Your task to perform on an android device: choose inbox layout in the gmail app Image 0: 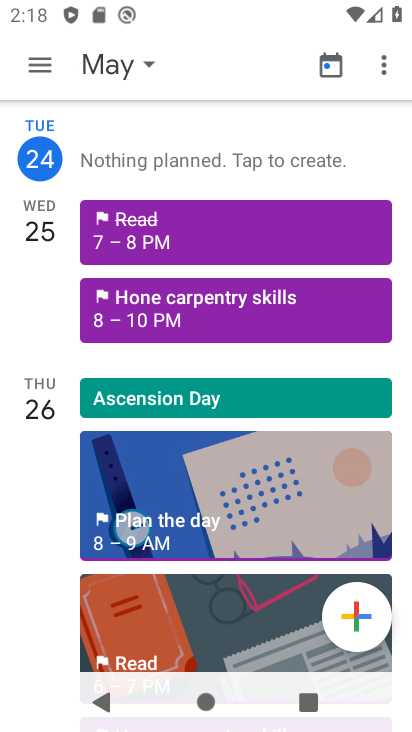
Step 0: press home button
Your task to perform on an android device: choose inbox layout in the gmail app Image 1: 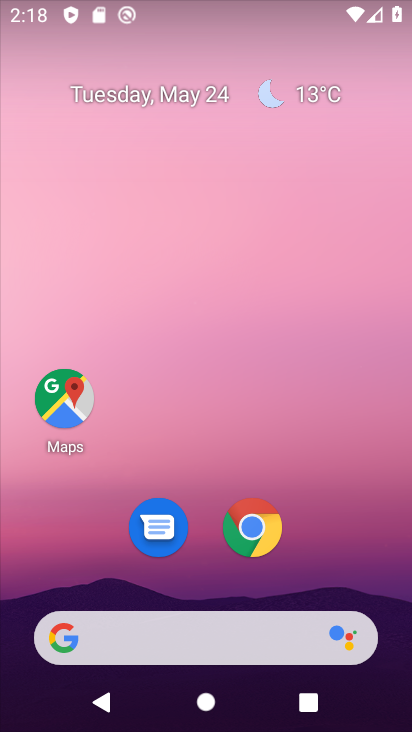
Step 1: drag from (325, 557) to (328, 58)
Your task to perform on an android device: choose inbox layout in the gmail app Image 2: 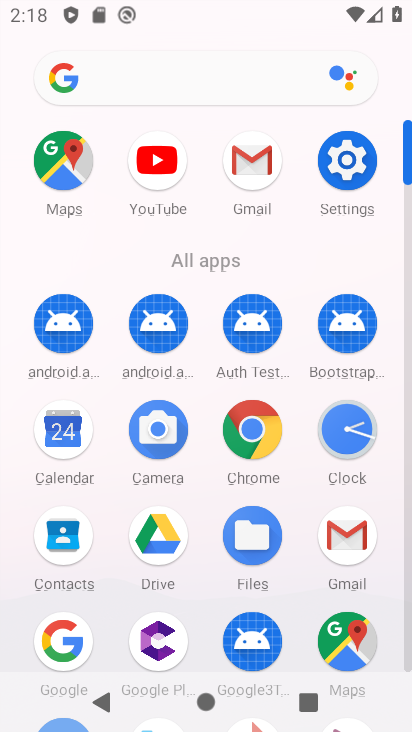
Step 2: click (343, 539)
Your task to perform on an android device: choose inbox layout in the gmail app Image 3: 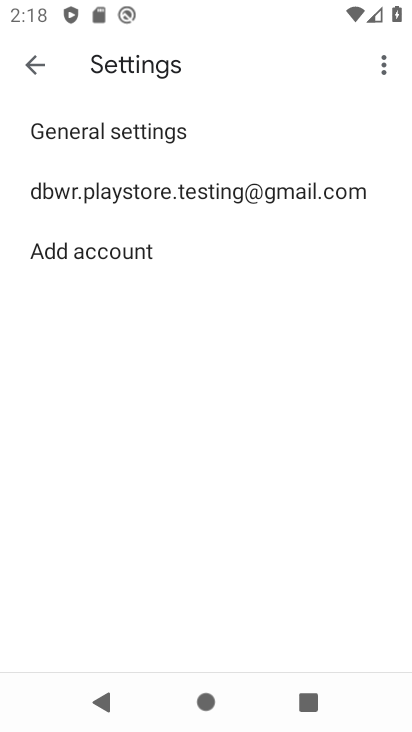
Step 3: click (126, 199)
Your task to perform on an android device: choose inbox layout in the gmail app Image 4: 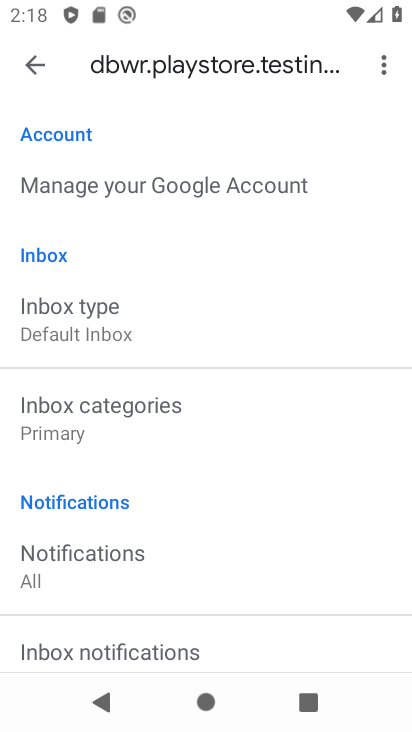
Step 4: click (86, 315)
Your task to perform on an android device: choose inbox layout in the gmail app Image 5: 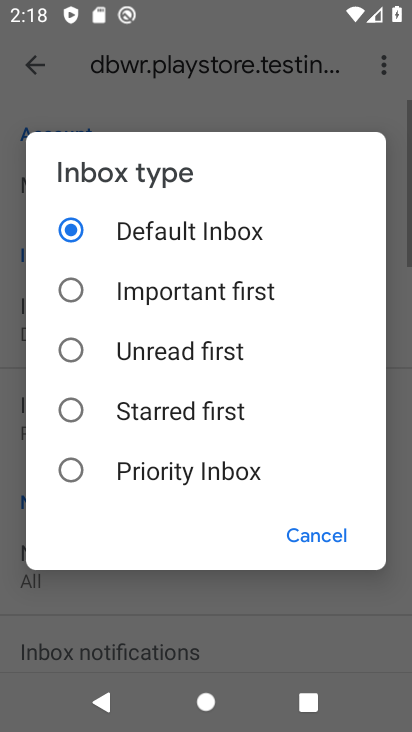
Step 5: click (72, 348)
Your task to perform on an android device: choose inbox layout in the gmail app Image 6: 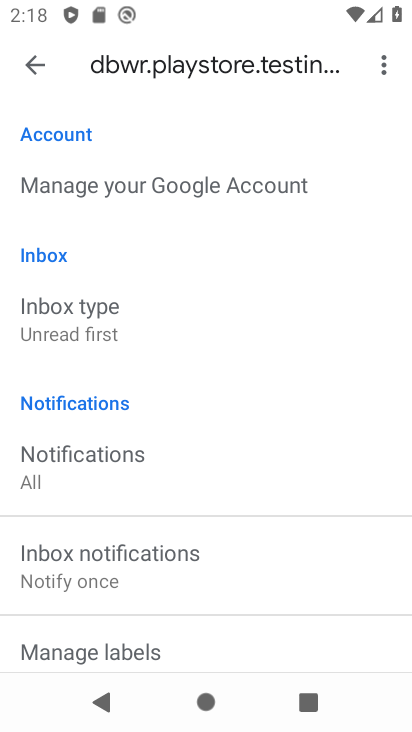
Step 6: task complete